Your task to perform on an android device: Open battery settings Image 0: 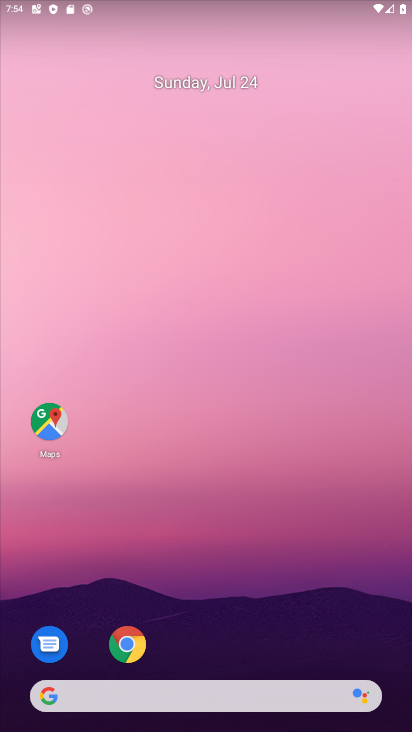
Step 0: drag from (299, 647) to (172, 100)
Your task to perform on an android device: Open battery settings Image 1: 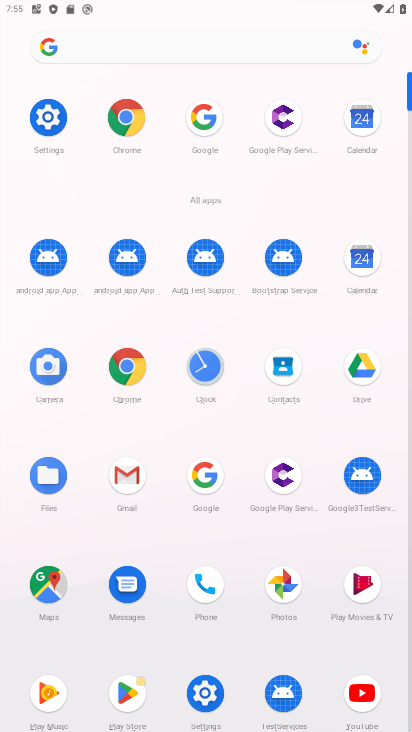
Step 1: click (207, 678)
Your task to perform on an android device: Open battery settings Image 2: 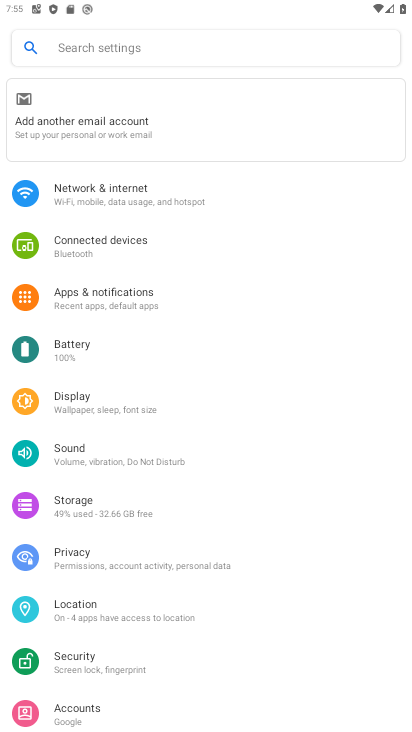
Step 2: click (108, 344)
Your task to perform on an android device: Open battery settings Image 3: 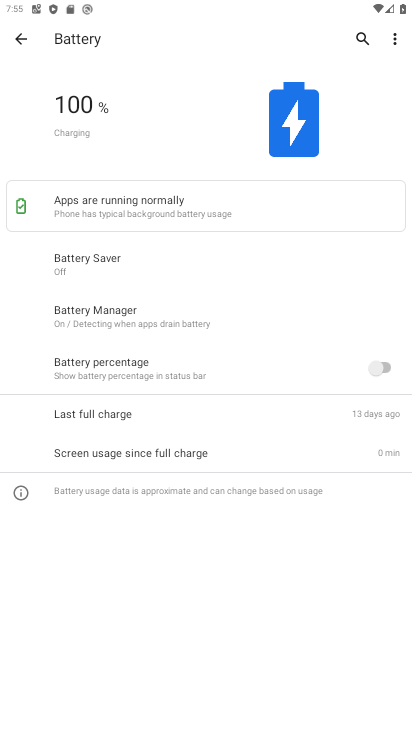
Step 3: task complete